Your task to perform on an android device: Open Google Image 0: 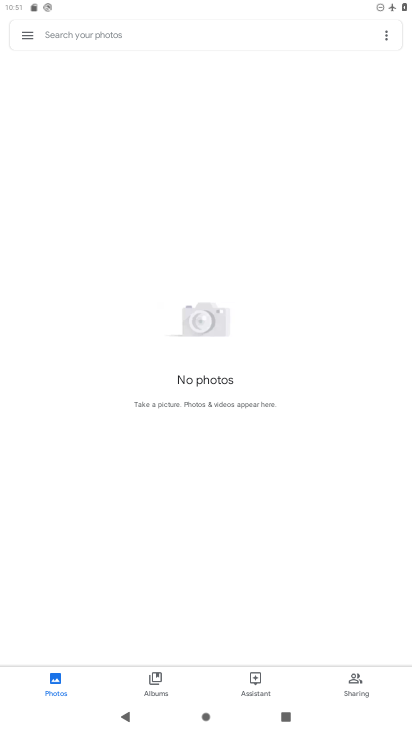
Step 0: press home button
Your task to perform on an android device: Open Google Image 1: 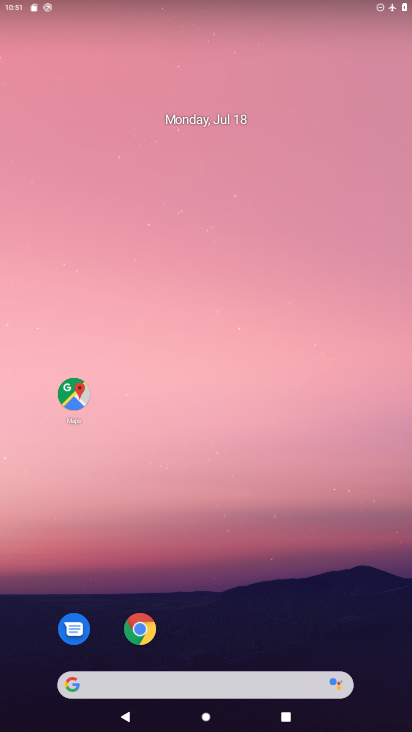
Step 1: drag from (276, 557) to (241, 73)
Your task to perform on an android device: Open Google Image 2: 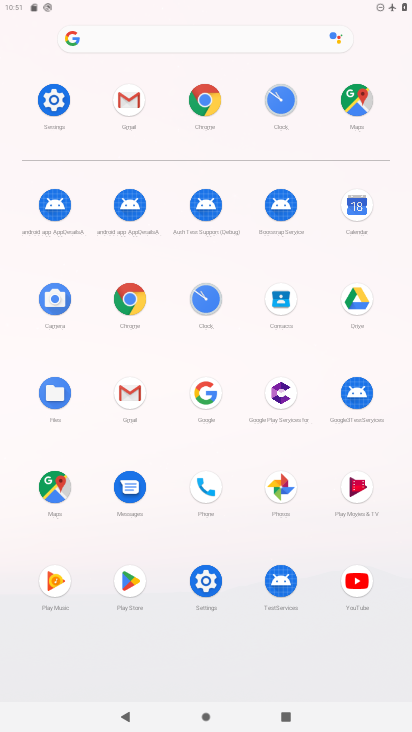
Step 2: click (198, 399)
Your task to perform on an android device: Open Google Image 3: 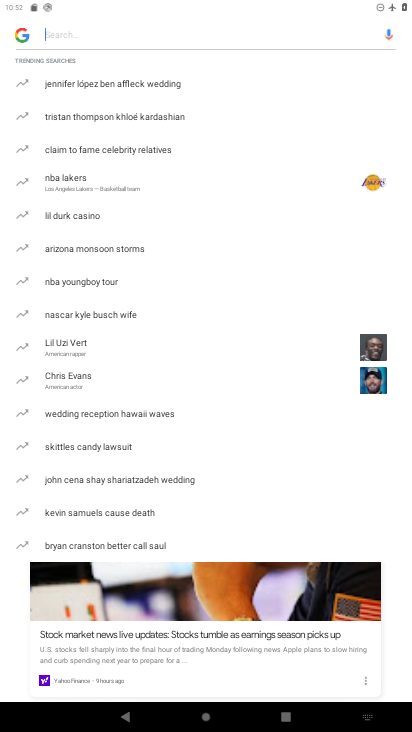
Step 3: task complete